Your task to perform on an android device: When is my next appointment? Image 0: 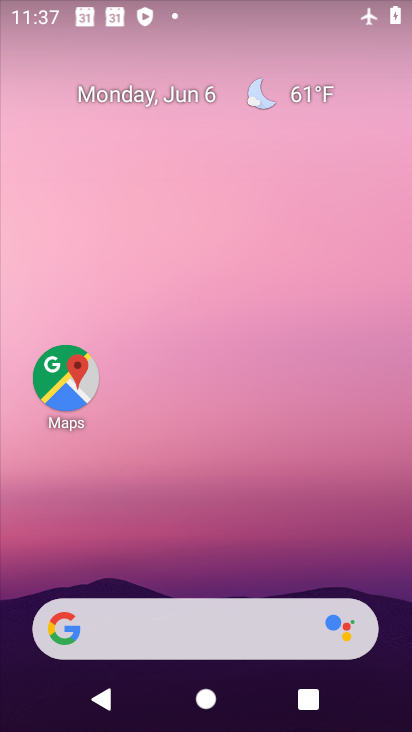
Step 0: drag from (239, 161) to (222, 25)
Your task to perform on an android device: When is my next appointment? Image 1: 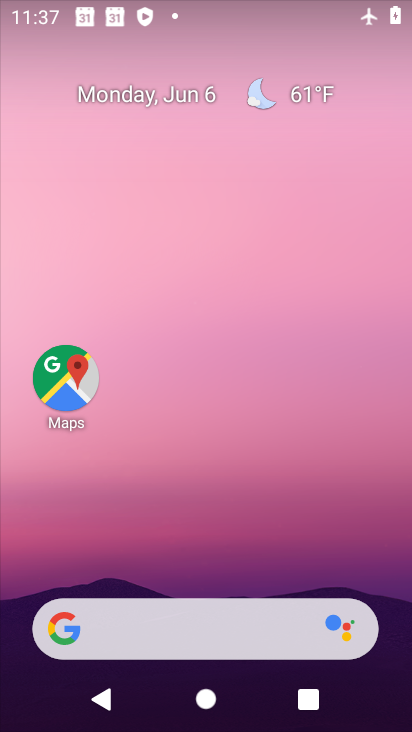
Step 1: drag from (216, 340) to (214, 0)
Your task to perform on an android device: When is my next appointment? Image 2: 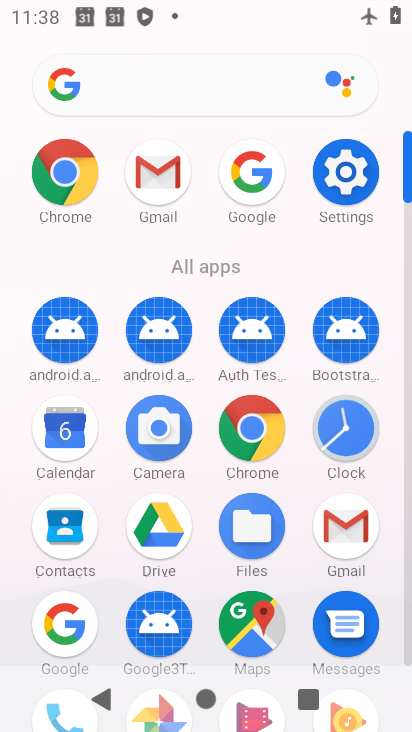
Step 2: click (62, 427)
Your task to perform on an android device: When is my next appointment? Image 3: 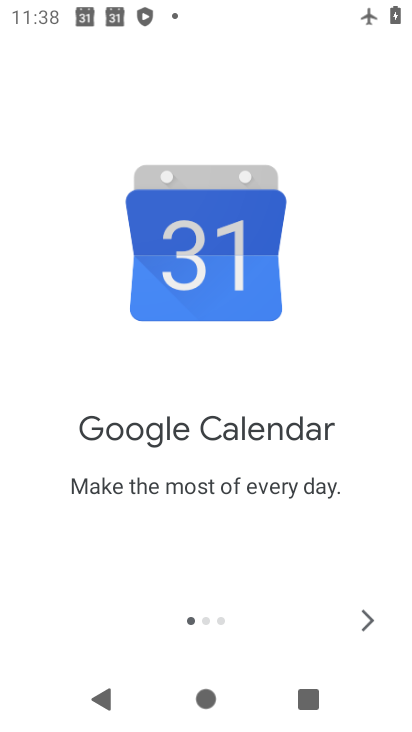
Step 3: click (370, 617)
Your task to perform on an android device: When is my next appointment? Image 4: 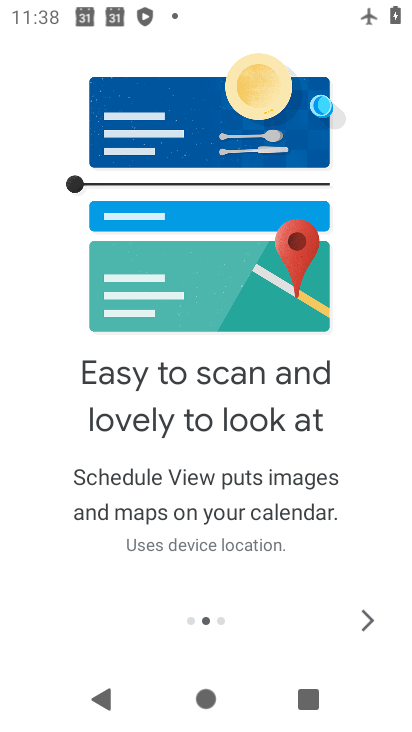
Step 4: click (370, 618)
Your task to perform on an android device: When is my next appointment? Image 5: 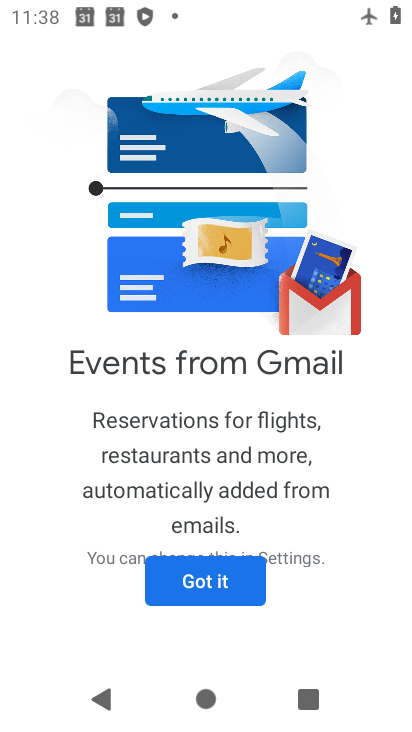
Step 5: click (171, 579)
Your task to perform on an android device: When is my next appointment? Image 6: 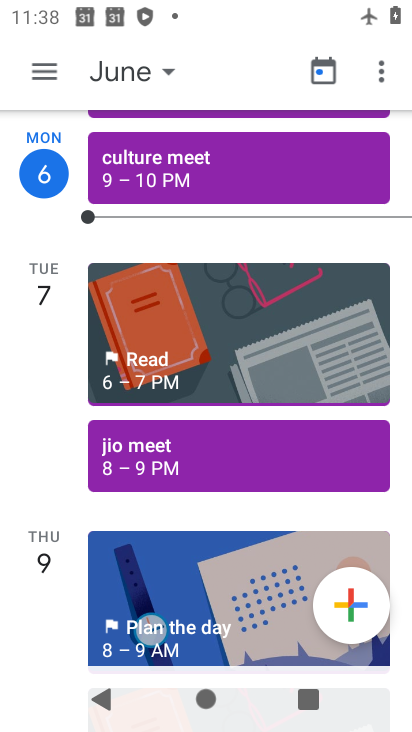
Step 6: click (139, 69)
Your task to perform on an android device: When is my next appointment? Image 7: 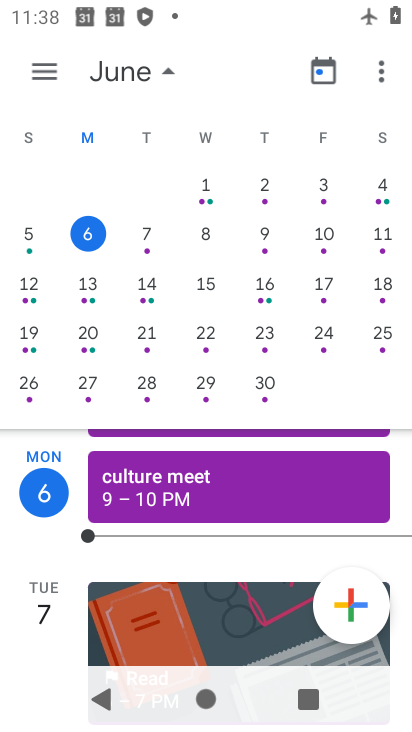
Step 7: click (205, 228)
Your task to perform on an android device: When is my next appointment? Image 8: 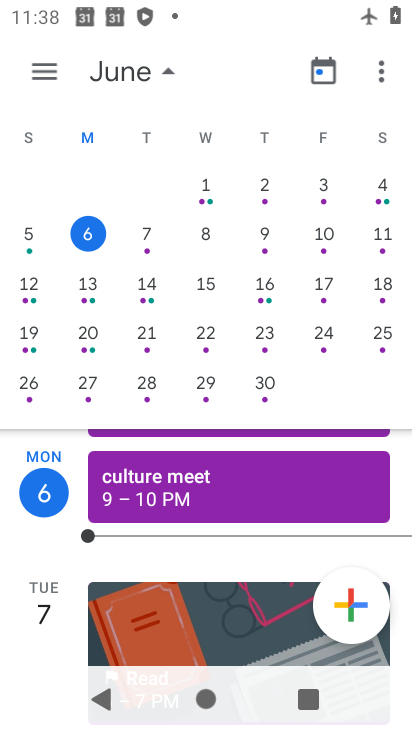
Step 8: click (207, 237)
Your task to perform on an android device: When is my next appointment? Image 9: 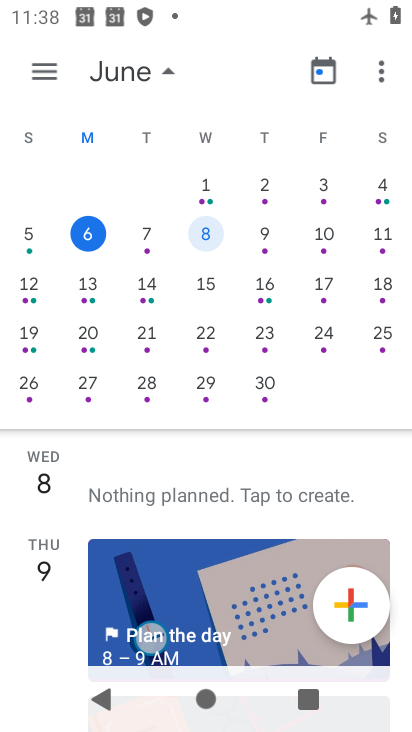
Step 9: task complete